Your task to perform on an android device: Go to Yahoo.com Image 0: 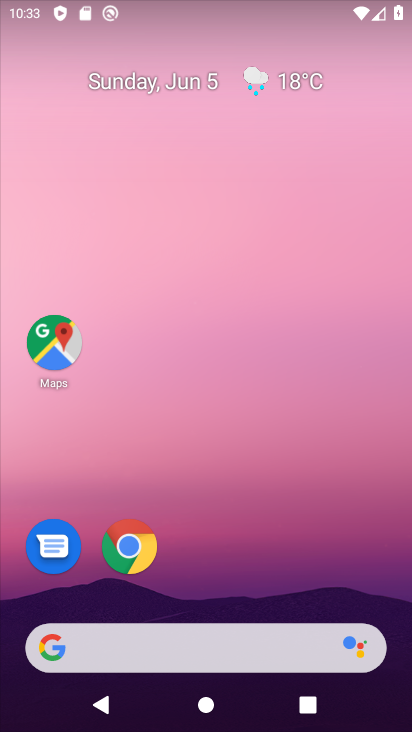
Step 0: click (136, 555)
Your task to perform on an android device: Go to Yahoo.com Image 1: 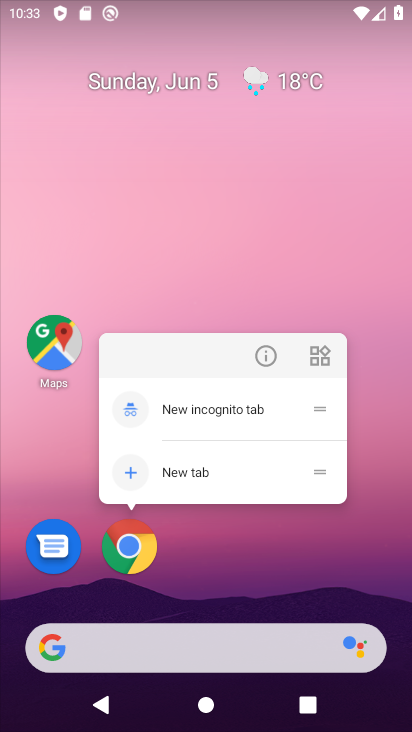
Step 1: click (138, 549)
Your task to perform on an android device: Go to Yahoo.com Image 2: 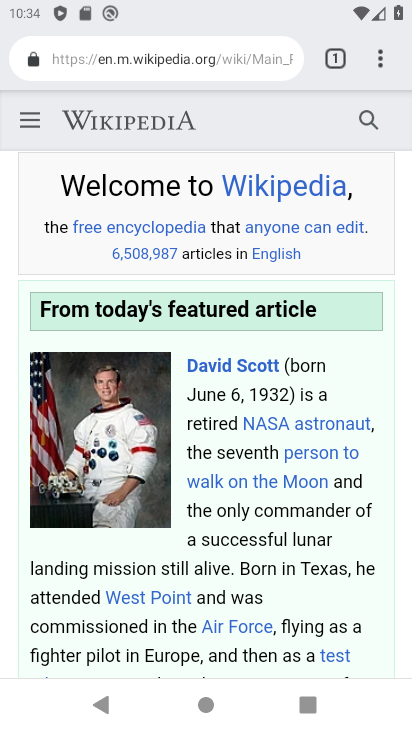
Step 2: click (343, 68)
Your task to perform on an android device: Go to Yahoo.com Image 3: 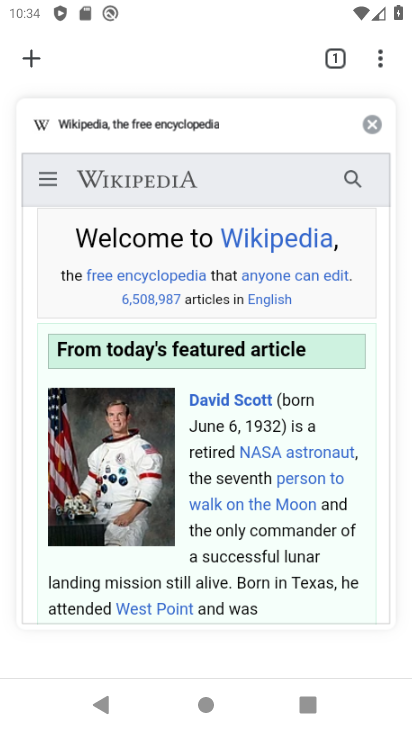
Step 3: click (364, 123)
Your task to perform on an android device: Go to Yahoo.com Image 4: 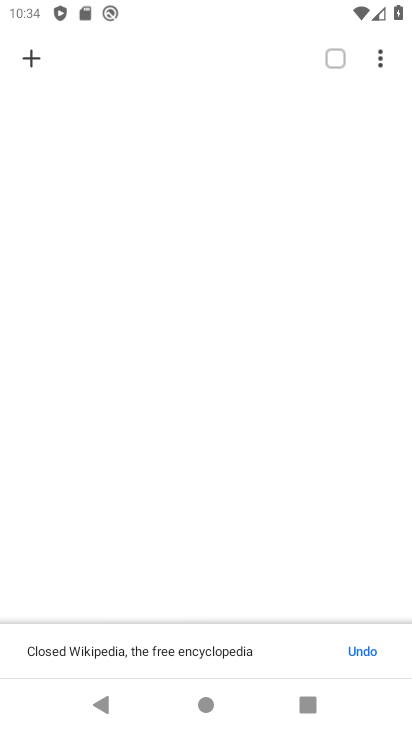
Step 4: click (32, 63)
Your task to perform on an android device: Go to Yahoo.com Image 5: 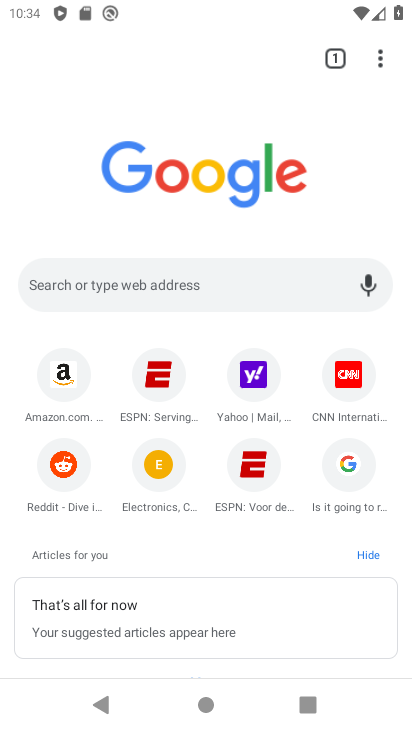
Step 5: click (252, 384)
Your task to perform on an android device: Go to Yahoo.com Image 6: 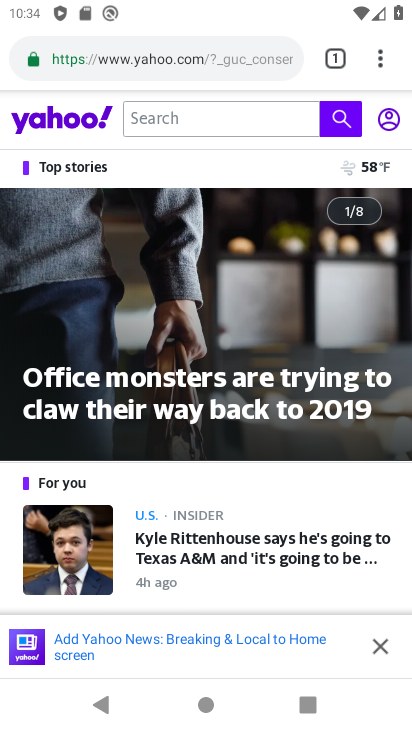
Step 6: task complete